Your task to perform on an android device: Open location settings Image 0: 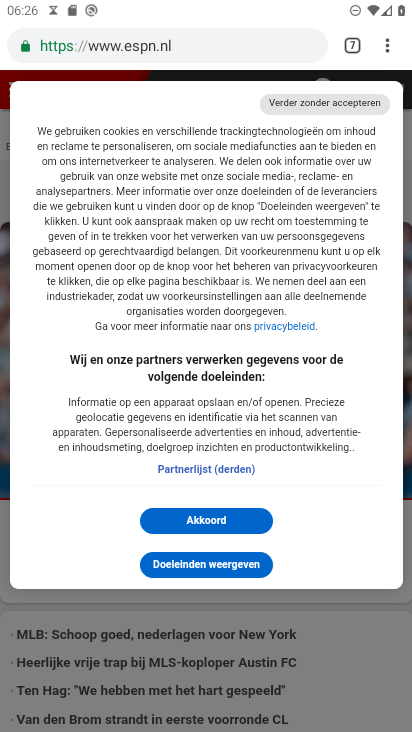
Step 0: press home button
Your task to perform on an android device: Open location settings Image 1: 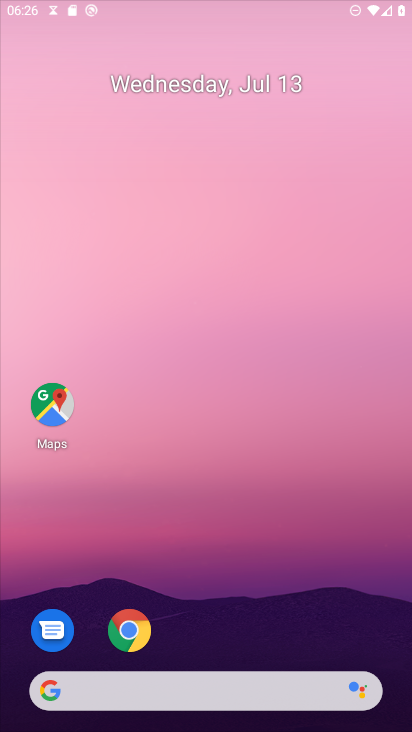
Step 1: drag from (222, 678) to (379, 4)
Your task to perform on an android device: Open location settings Image 2: 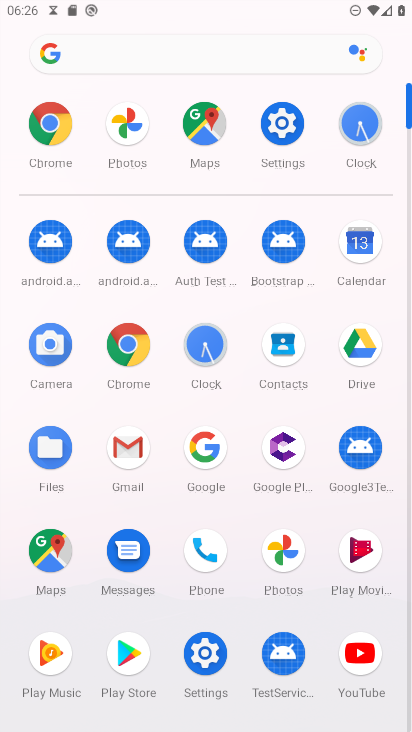
Step 2: click (273, 131)
Your task to perform on an android device: Open location settings Image 3: 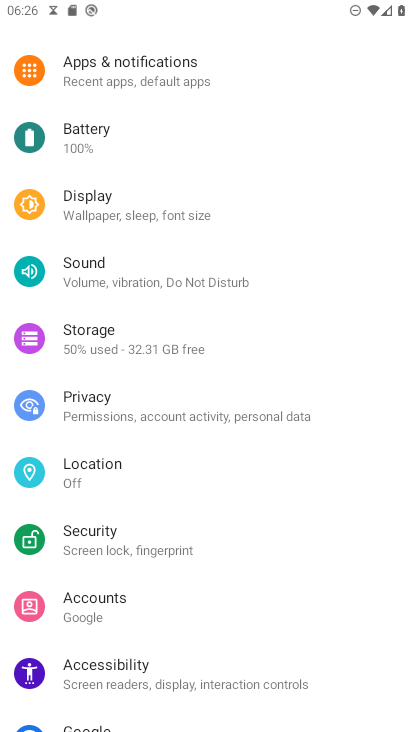
Step 3: click (105, 462)
Your task to perform on an android device: Open location settings Image 4: 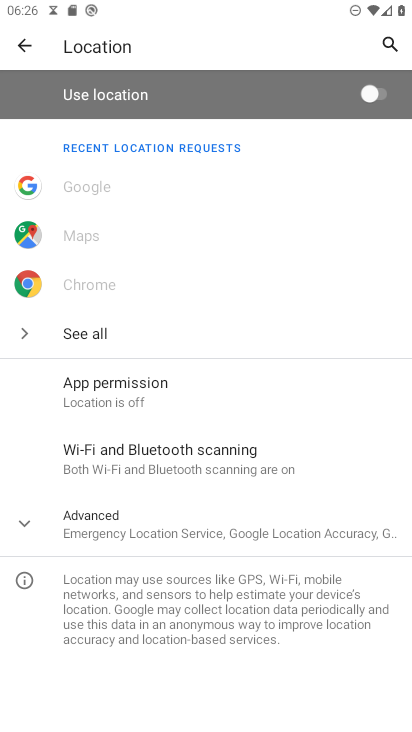
Step 4: task complete